Your task to perform on an android device: Open my contact list Image 0: 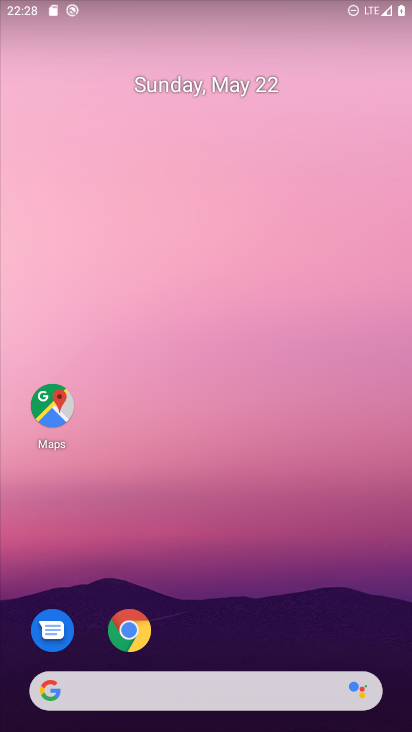
Step 0: press home button
Your task to perform on an android device: Open my contact list Image 1: 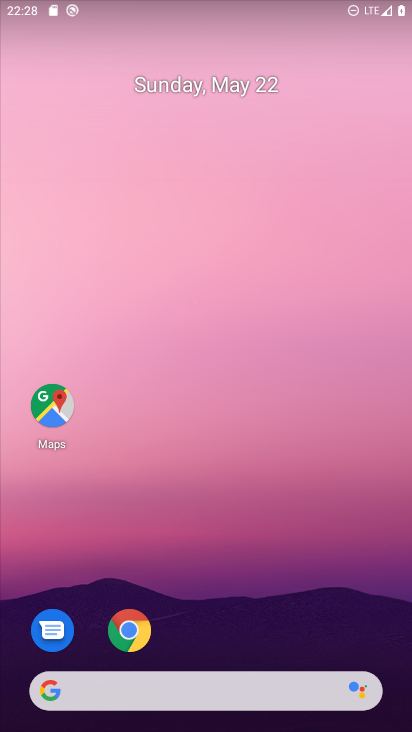
Step 1: drag from (159, 686) to (305, 19)
Your task to perform on an android device: Open my contact list Image 2: 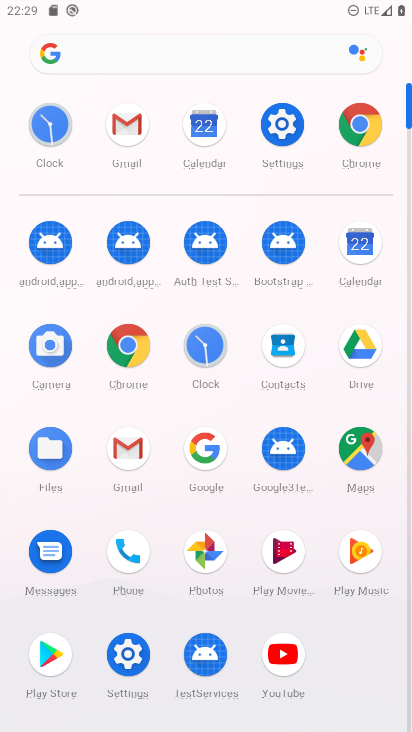
Step 2: click (282, 348)
Your task to perform on an android device: Open my contact list Image 3: 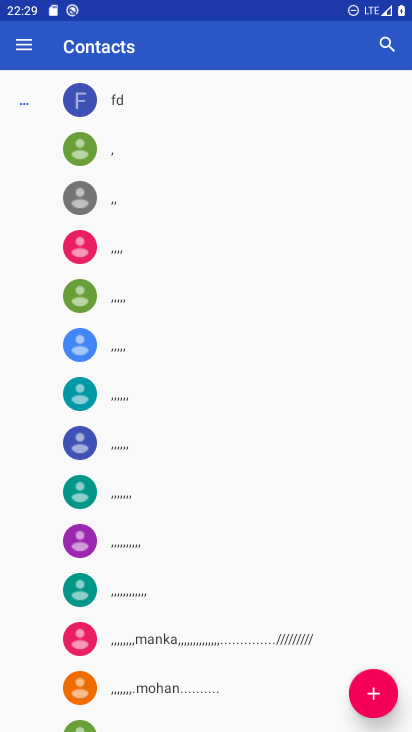
Step 3: click (375, 692)
Your task to perform on an android device: Open my contact list Image 4: 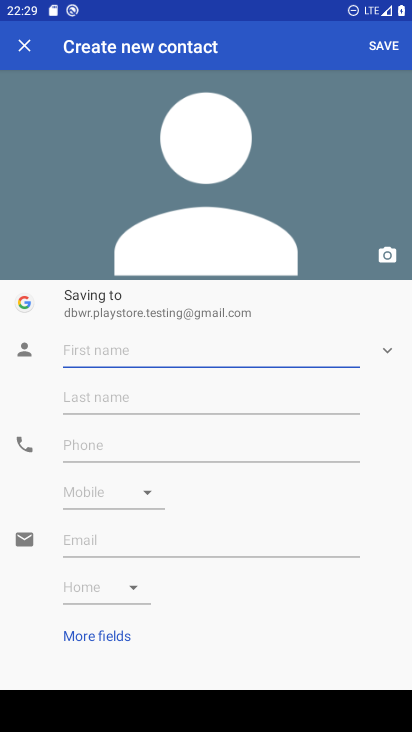
Step 4: click (124, 343)
Your task to perform on an android device: Open my contact list Image 5: 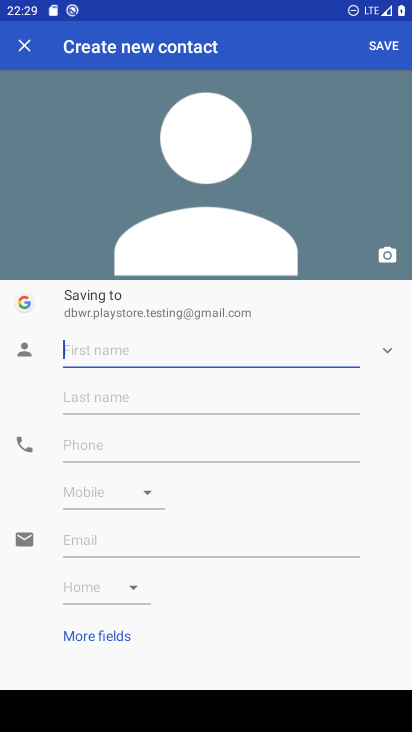
Step 5: type "byttrreeesz"
Your task to perform on an android device: Open my contact list Image 6: 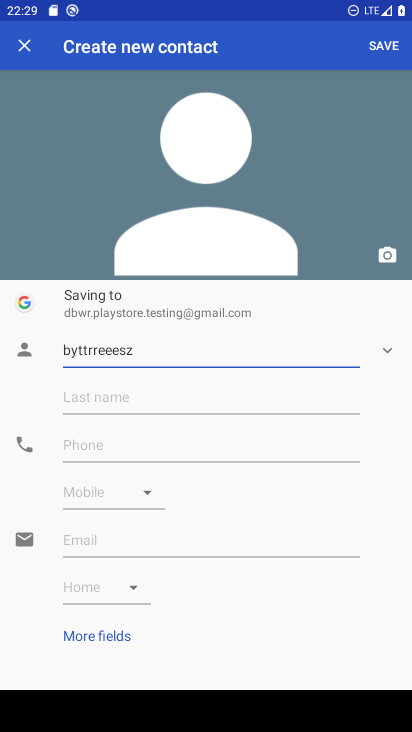
Step 6: click (95, 440)
Your task to perform on an android device: Open my contact list Image 7: 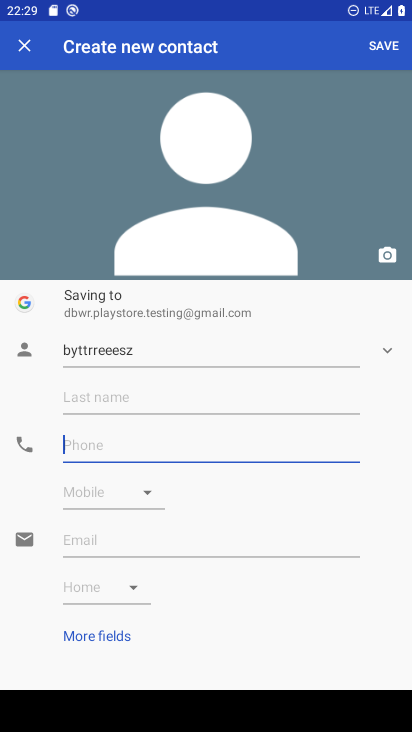
Step 7: type "3422214442"
Your task to perform on an android device: Open my contact list Image 8: 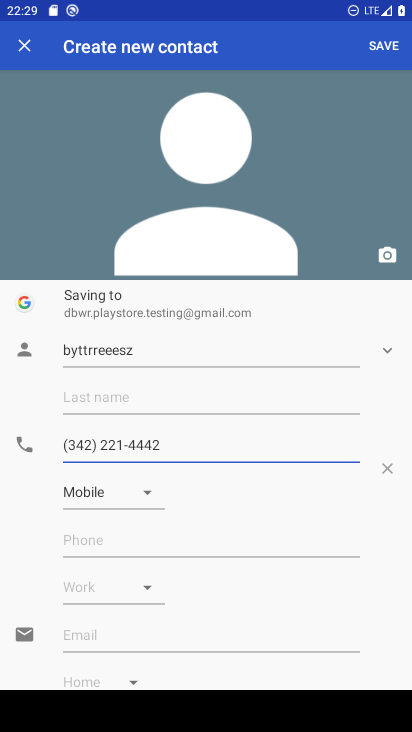
Step 8: click (385, 39)
Your task to perform on an android device: Open my contact list Image 9: 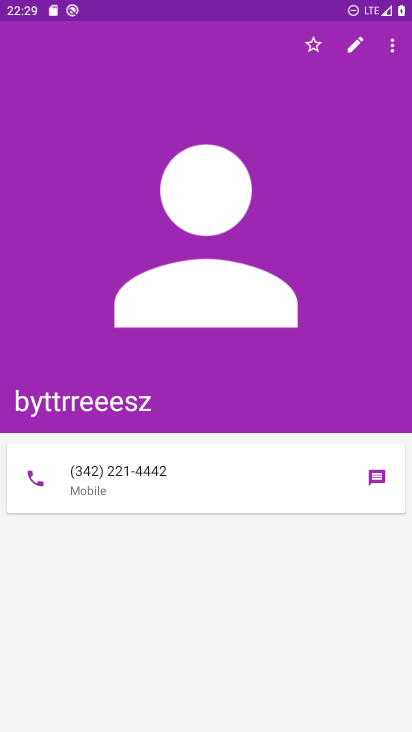
Step 9: task complete